Your task to perform on an android device: Open the Play Movies app and select the watchlist tab. Image 0: 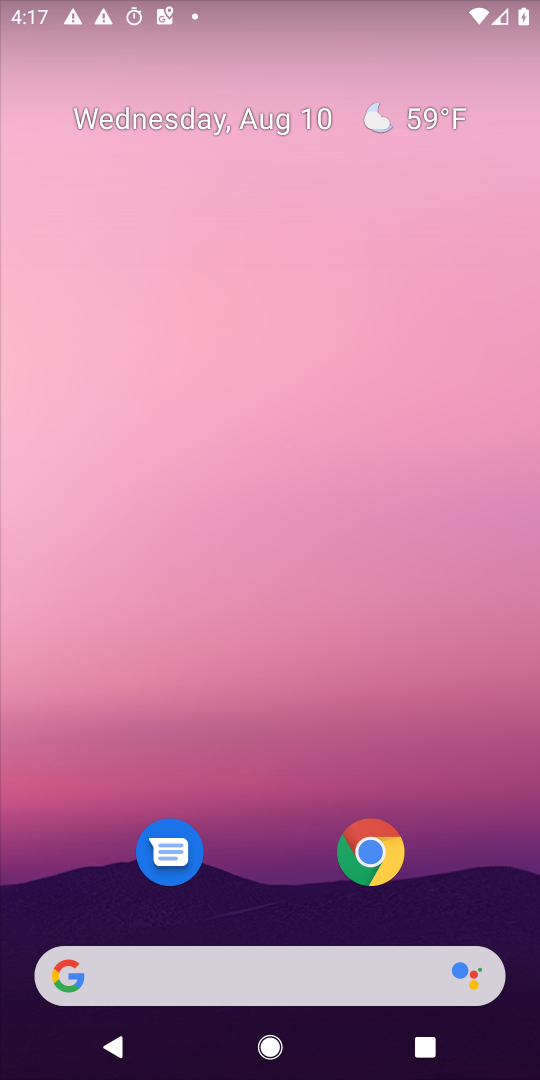
Step 0: drag from (280, 835) to (145, 244)
Your task to perform on an android device: Open the Play Movies app and select the watchlist tab. Image 1: 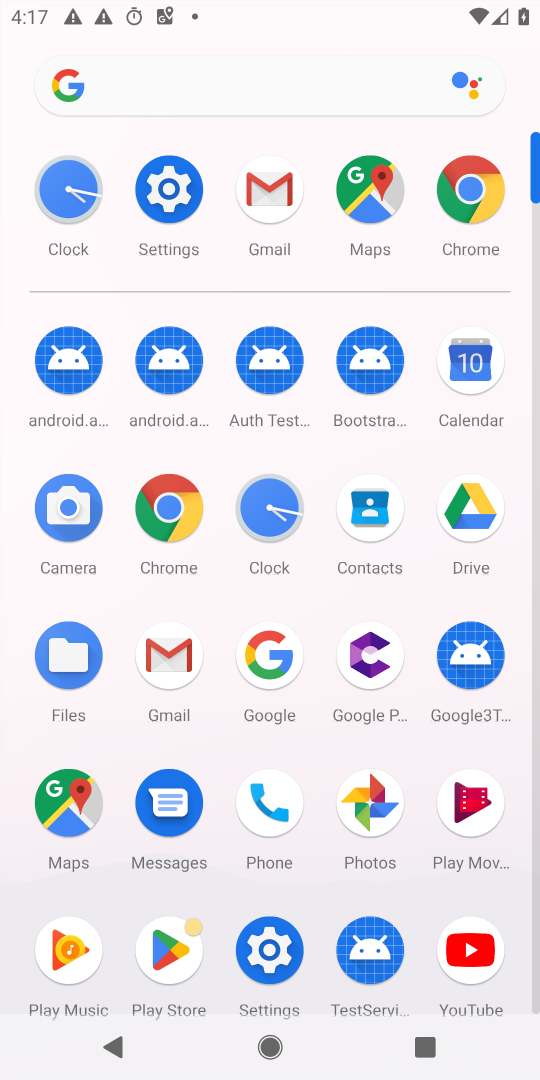
Step 1: click (483, 798)
Your task to perform on an android device: Open the Play Movies app and select the watchlist tab. Image 2: 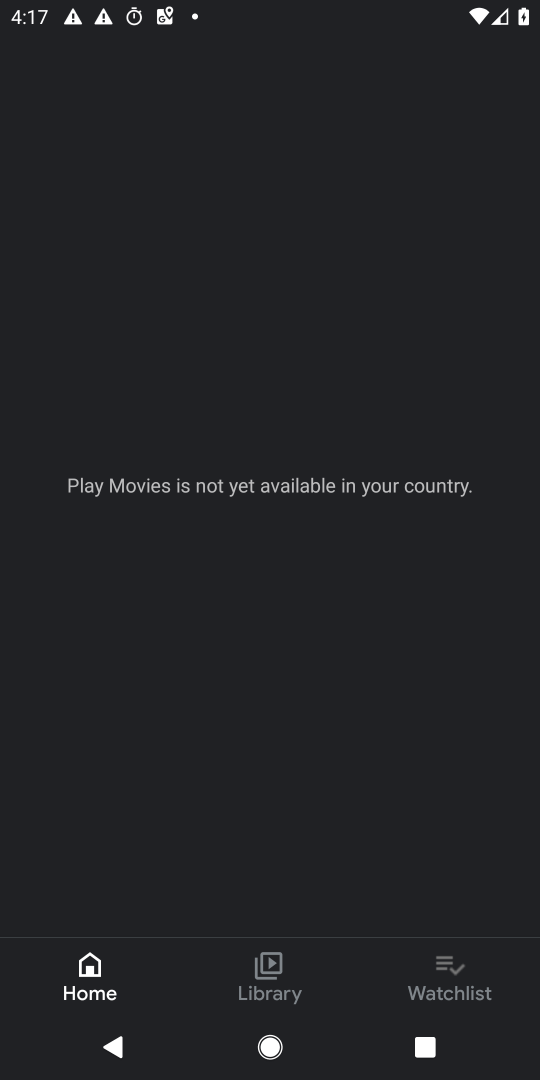
Step 2: click (422, 969)
Your task to perform on an android device: Open the Play Movies app and select the watchlist tab. Image 3: 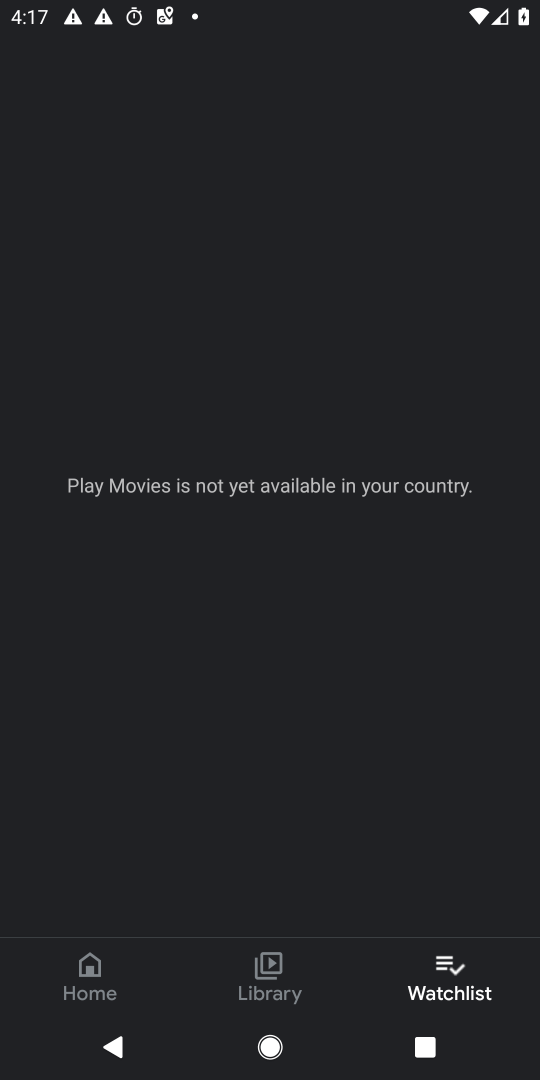
Step 3: task complete